Your task to perform on an android device: Toggle the flashlight Image 0: 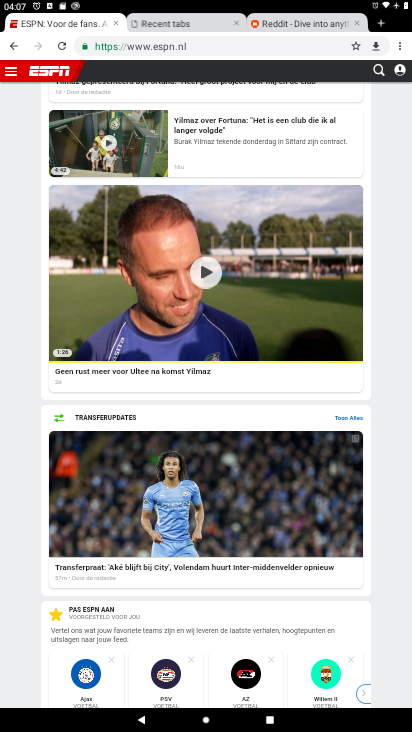
Step 0: press home button
Your task to perform on an android device: Toggle the flashlight Image 1: 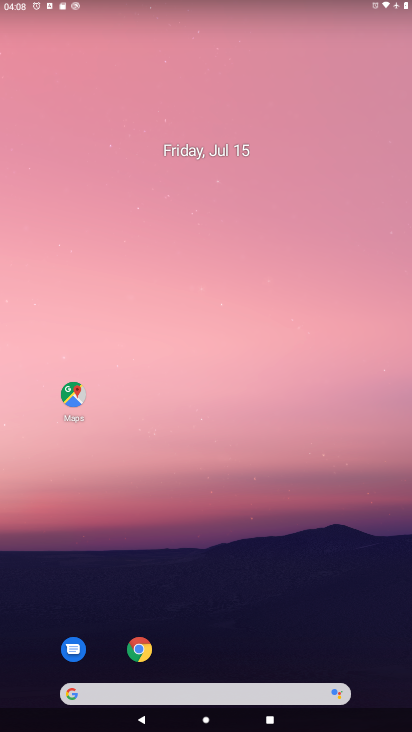
Step 1: drag from (222, 9) to (239, 462)
Your task to perform on an android device: Toggle the flashlight Image 2: 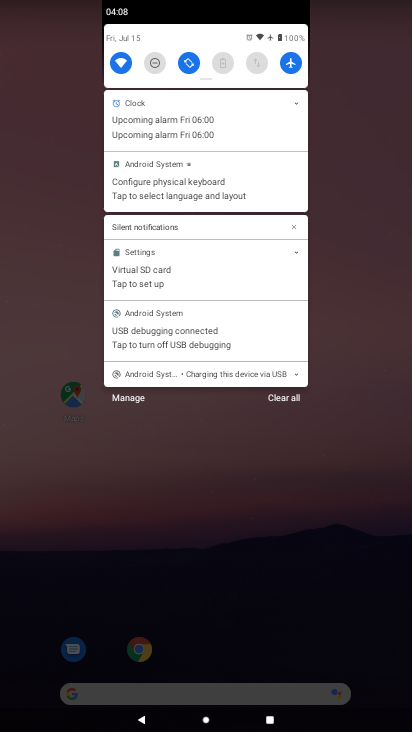
Step 2: drag from (204, 77) to (222, 373)
Your task to perform on an android device: Toggle the flashlight Image 3: 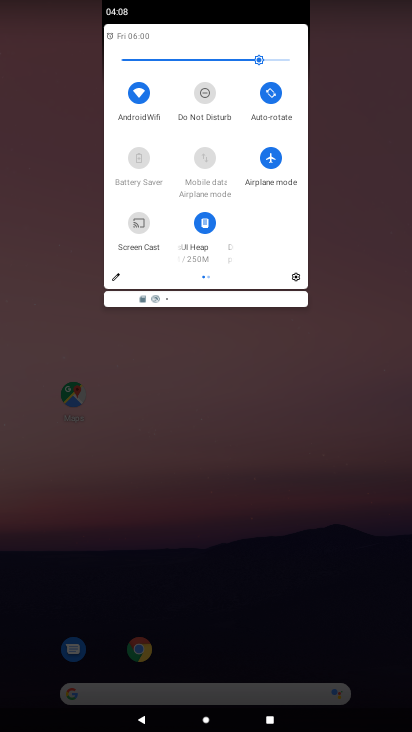
Step 3: click (117, 276)
Your task to perform on an android device: Toggle the flashlight Image 4: 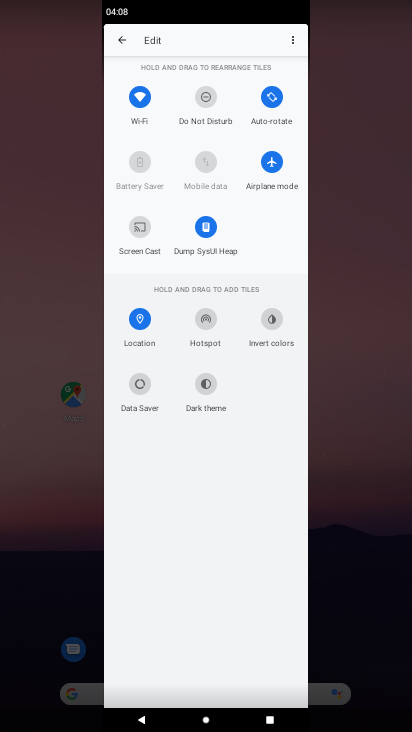
Step 4: task complete